Your task to perform on an android device: Search for sushi restaurants on Maps Image 0: 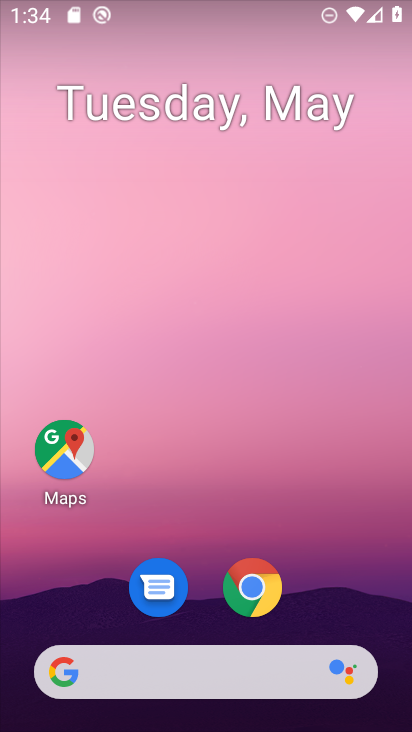
Step 0: click (81, 468)
Your task to perform on an android device: Search for sushi restaurants on Maps Image 1: 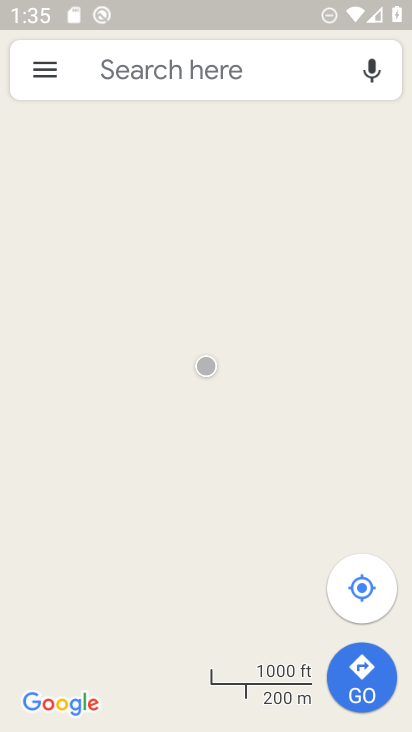
Step 1: click (180, 63)
Your task to perform on an android device: Search for sushi restaurants on Maps Image 2: 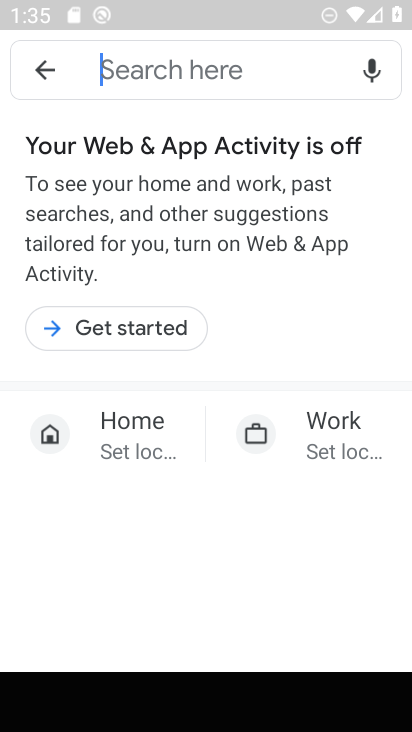
Step 2: click (180, 63)
Your task to perform on an android device: Search for sushi restaurants on Maps Image 3: 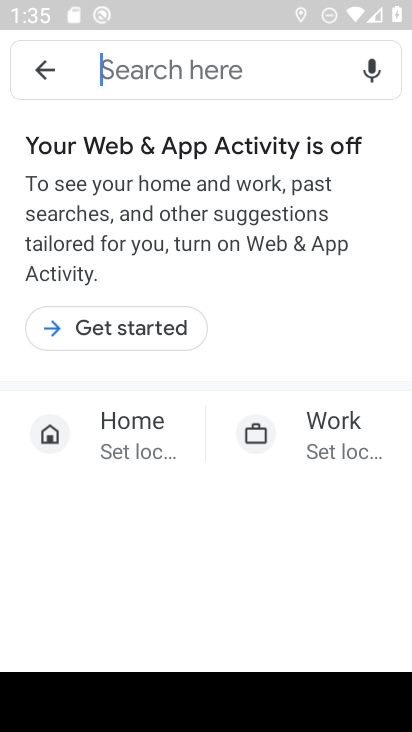
Step 3: type "sushi restaurant"
Your task to perform on an android device: Search for sushi restaurants on Maps Image 4: 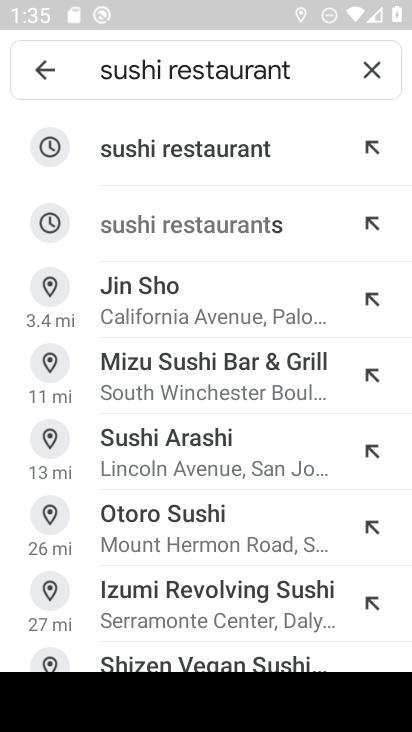
Step 4: click (211, 167)
Your task to perform on an android device: Search for sushi restaurants on Maps Image 5: 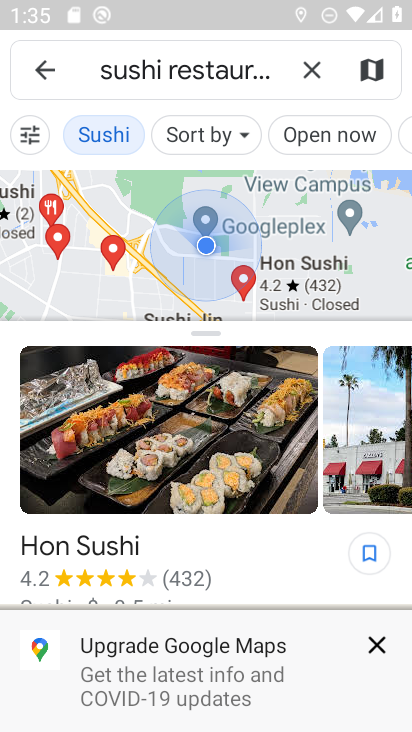
Step 5: task complete